Your task to perform on an android device: Open Chrome and go to settings Image 0: 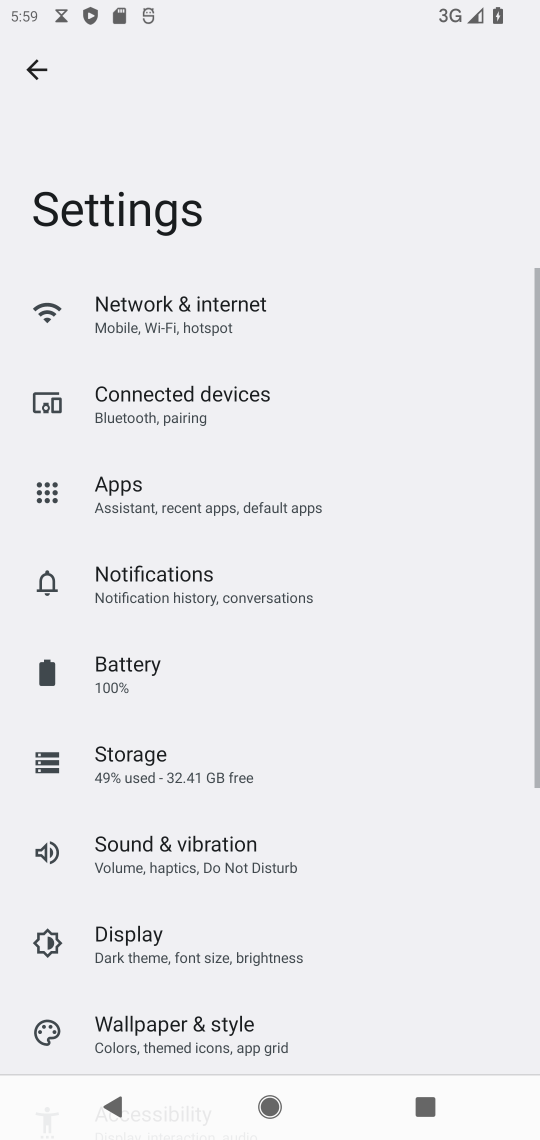
Step 0: press home button
Your task to perform on an android device: Open Chrome and go to settings Image 1: 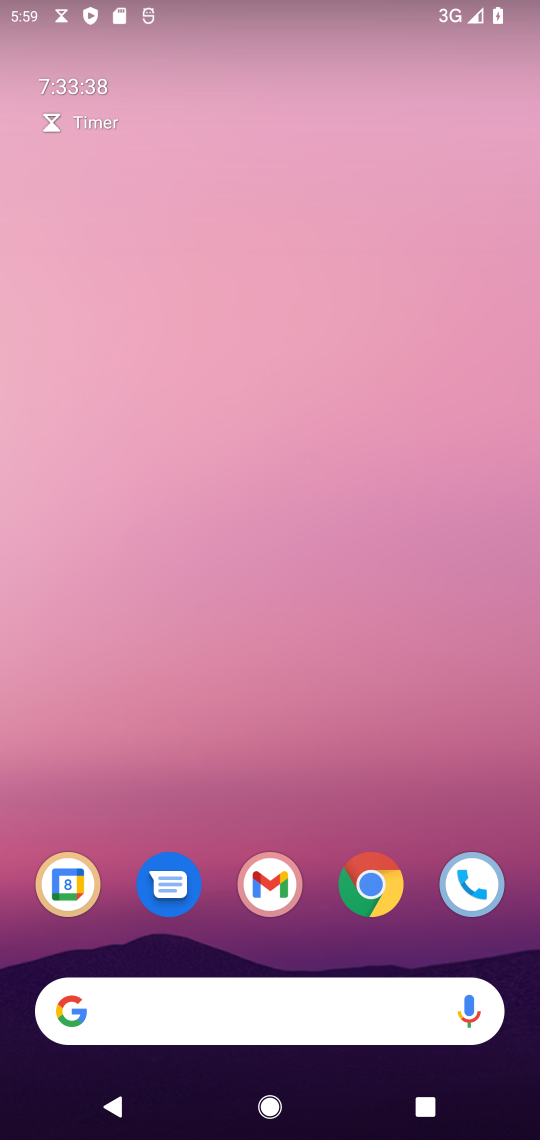
Step 1: click (372, 890)
Your task to perform on an android device: Open Chrome and go to settings Image 2: 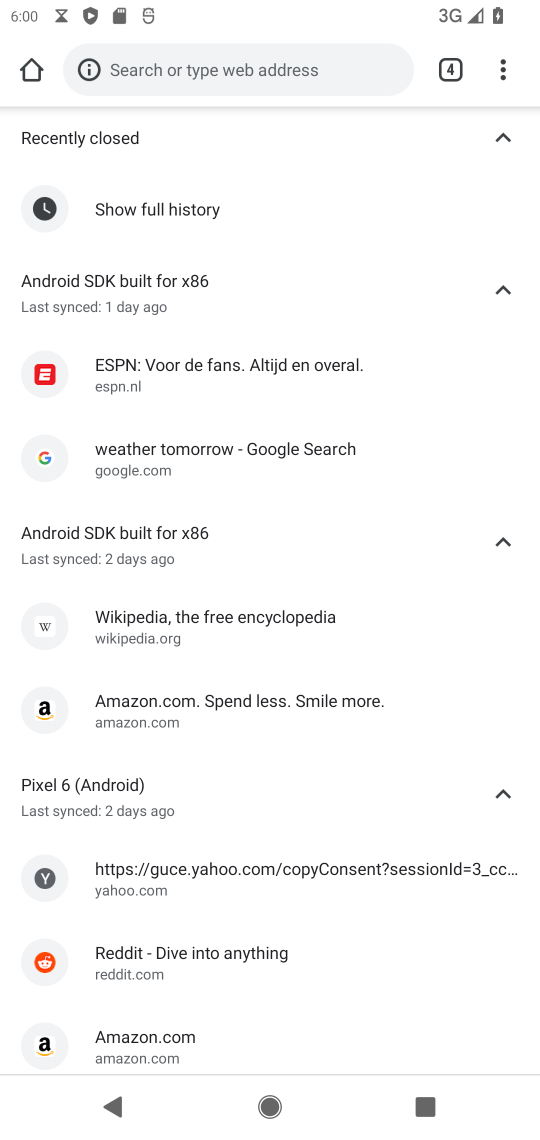
Step 2: click (521, 81)
Your task to perform on an android device: Open Chrome and go to settings Image 3: 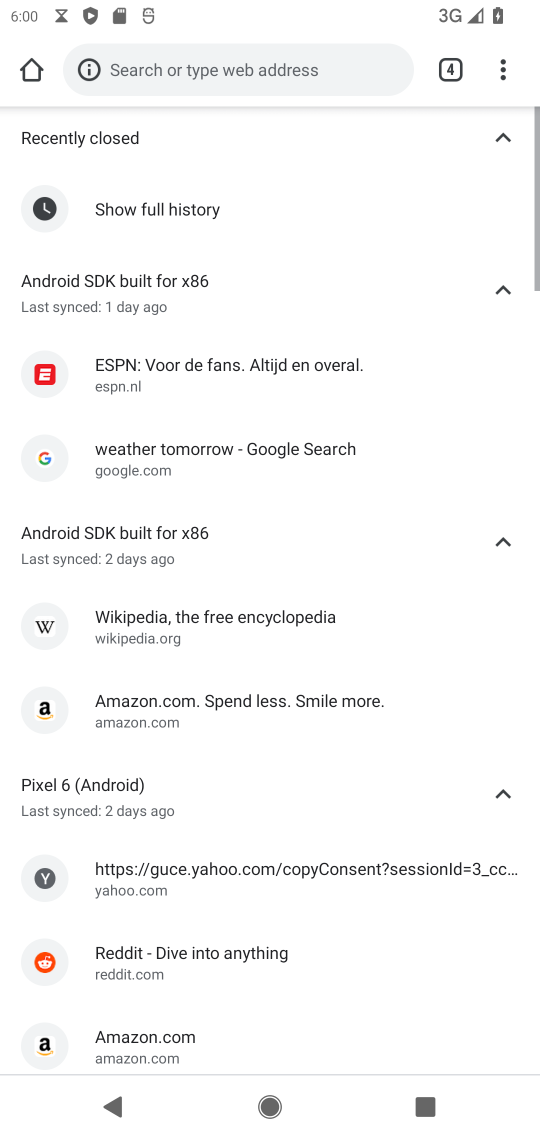
Step 3: click (516, 81)
Your task to perform on an android device: Open Chrome and go to settings Image 4: 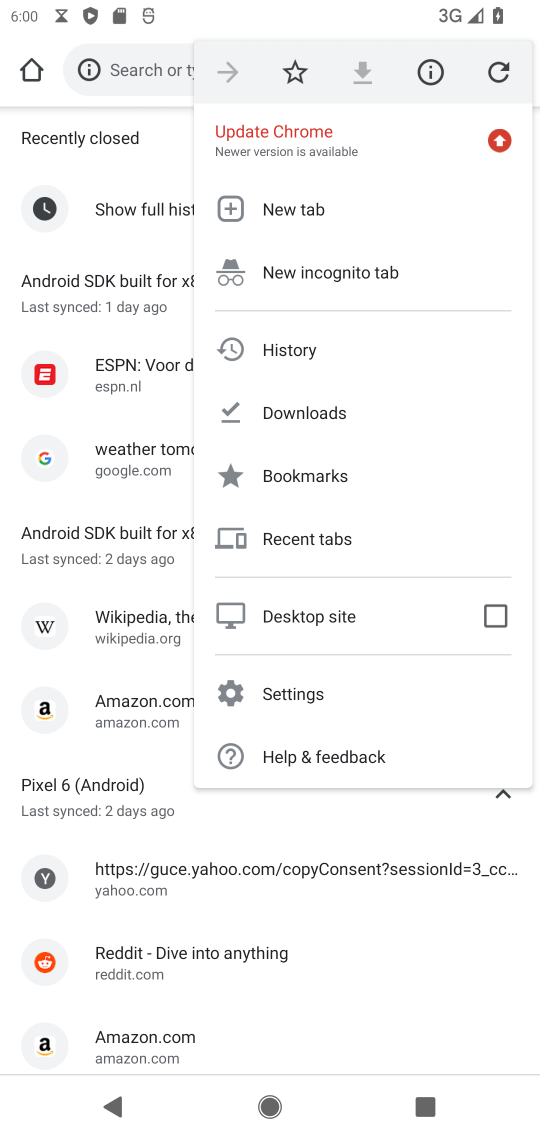
Step 4: click (261, 699)
Your task to perform on an android device: Open Chrome and go to settings Image 5: 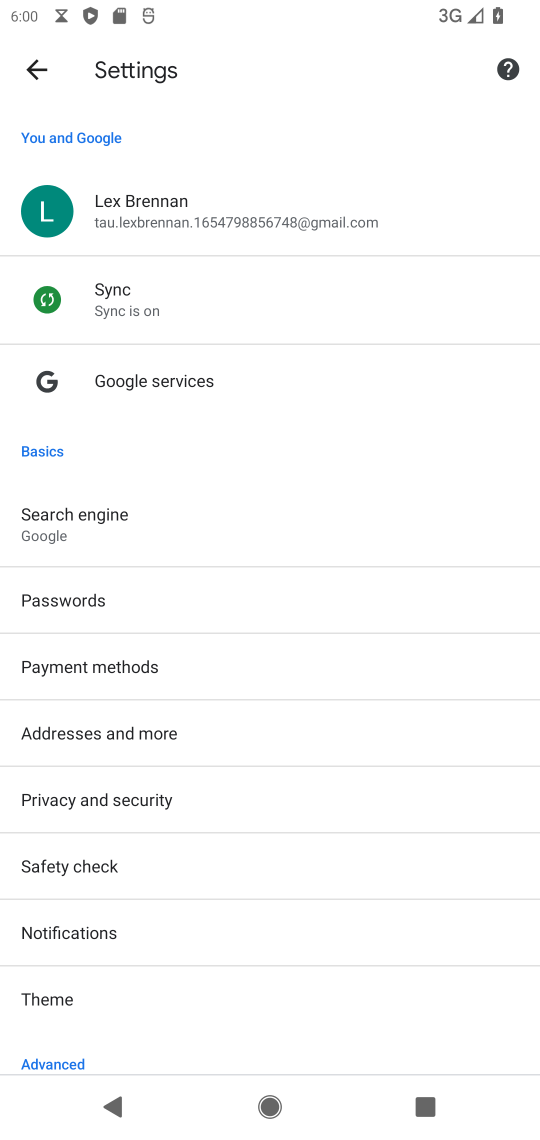
Step 5: task complete